Your task to perform on an android device: toggle translation in the chrome app Image 0: 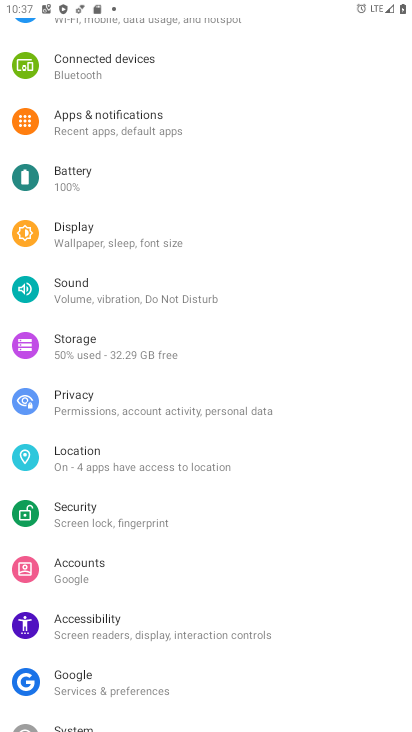
Step 0: press home button
Your task to perform on an android device: toggle translation in the chrome app Image 1: 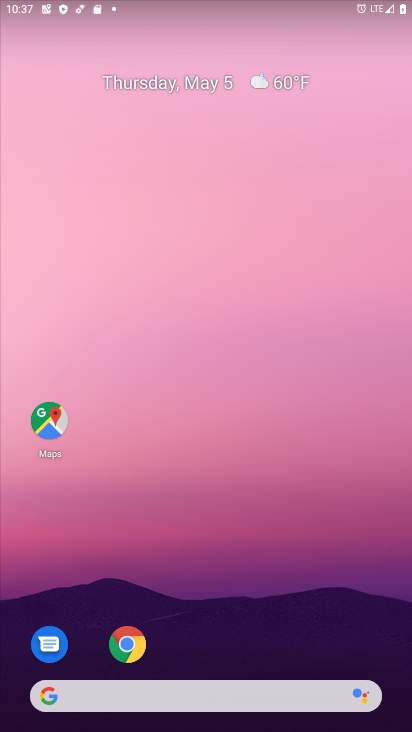
Step 1: click (118, 648)
Your task to perform on an android device: toggle translation in the chrome app Image 2: 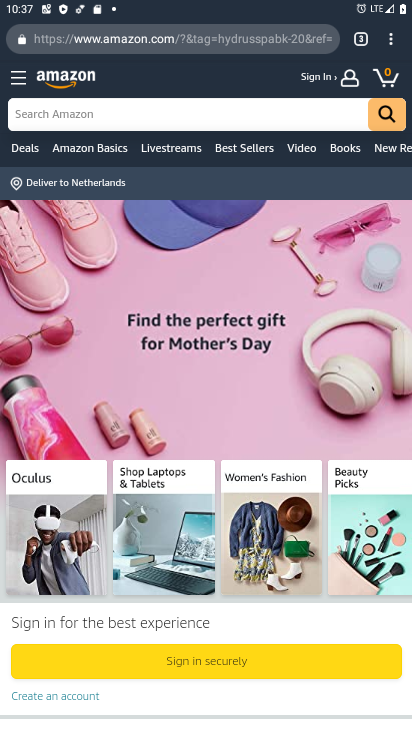
Step 2: drag from (391, 44) to (270, 475)
Your task to perform on an android device: toggle translation in the chrome app Image 3: 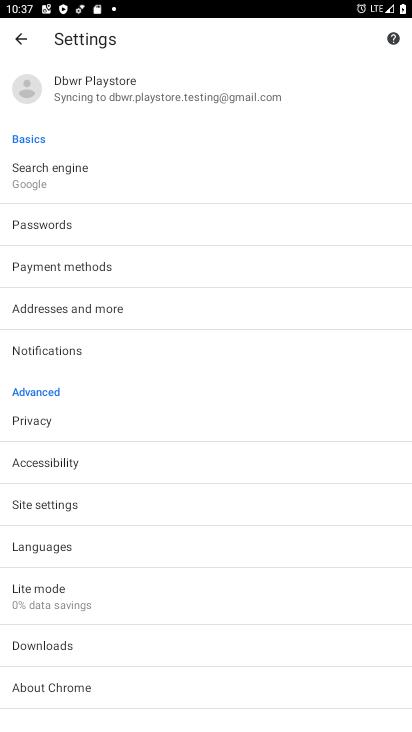
Step 3: click (87, 553)
Your task to perform on an android device: toggle translation in the chrome app Image 4: 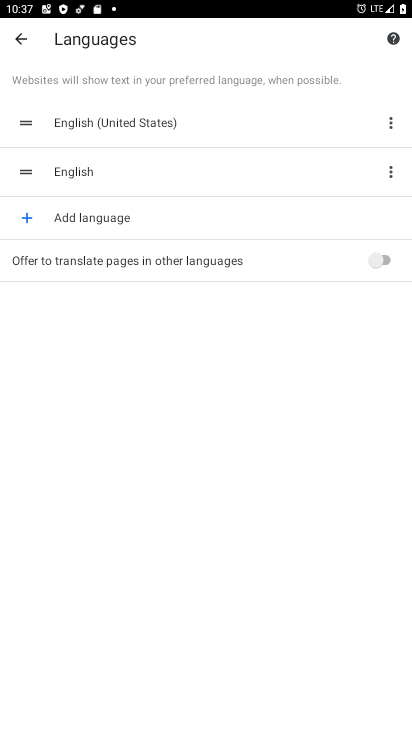
Step 4: click (386, 264)
Your task to perform on an android device: toggle translation in the chrome app Image 5: 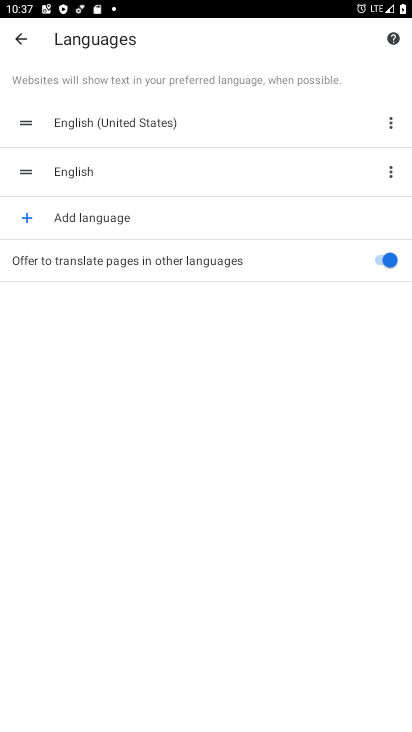
Step 5: task complete